Your task to perform on an android device: Go to accessibility settings Image 0: 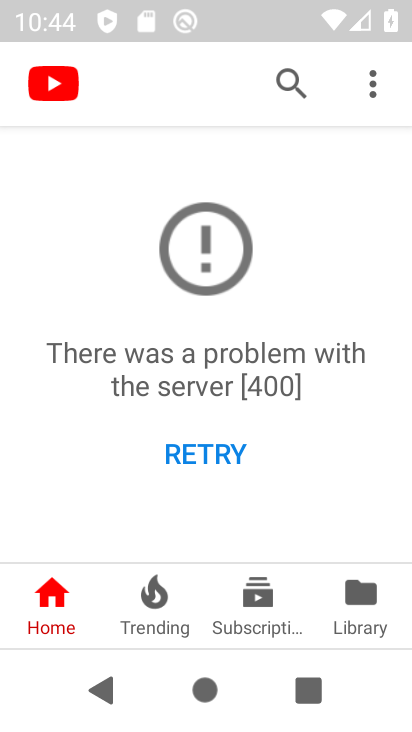
Step 0: press home button
Your task to perform on an android device: Go to accessibility settings Image 1: 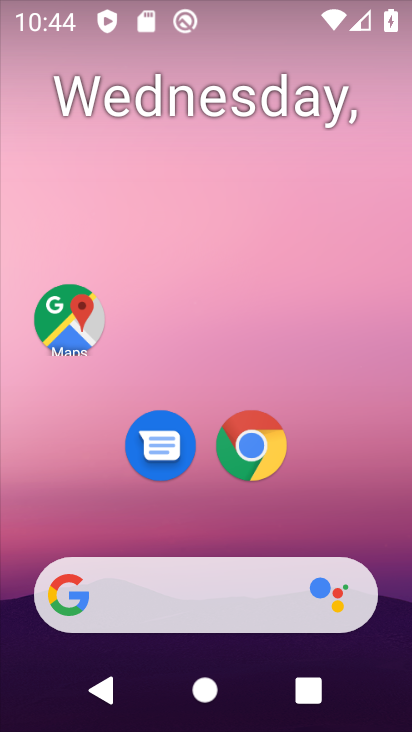
Step 1: drag from (185, 517) to (265, 105)
Your task to perform on an android device: Go to accessibility settings Image 2: 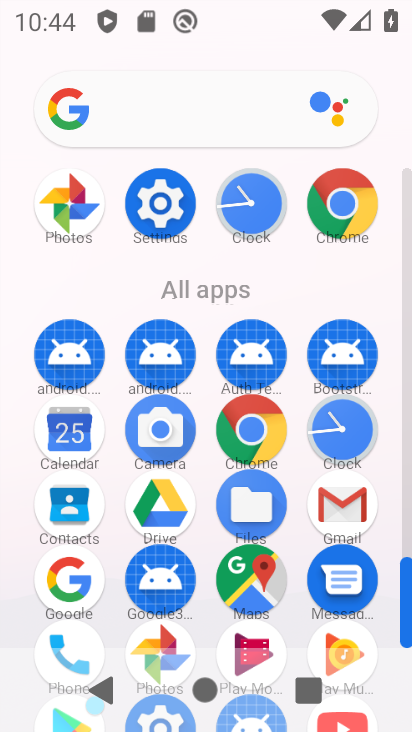
Step 2: click (168, 216)
Your task to perform on an android device: Go to accessibility settings Image 3: 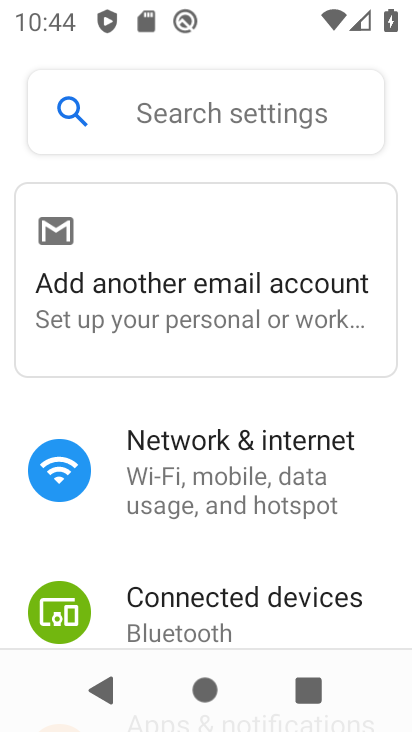
Step 3: drag from (183, 534) to (248, 144)
Your task to perform on an android device: Go to accessibility settings Image 4: 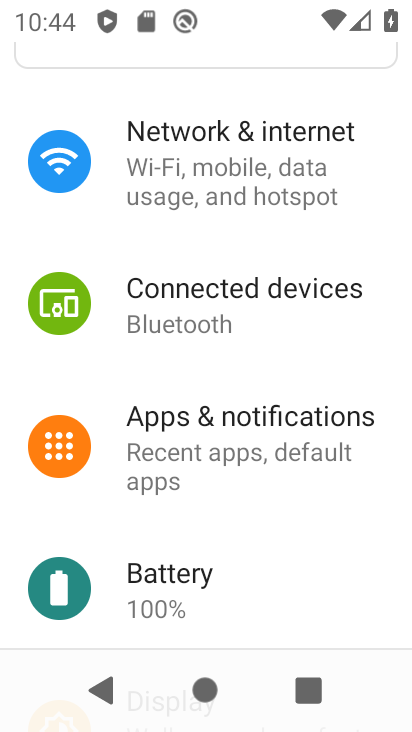
Step 4: drag from (216, 569) to (303, 76)
Your task to perform on an android device: Go to accessibility settings Image 5: 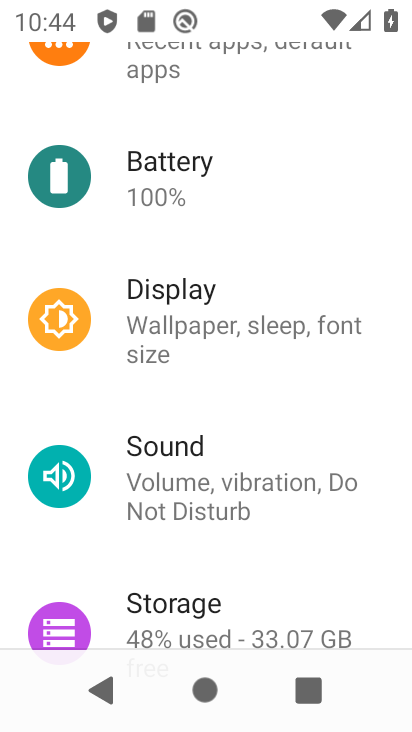
Step 5: drag from (219, 566) to (281, 72)
Your task to perform on an android device: Go to accessibility settings Image 6: 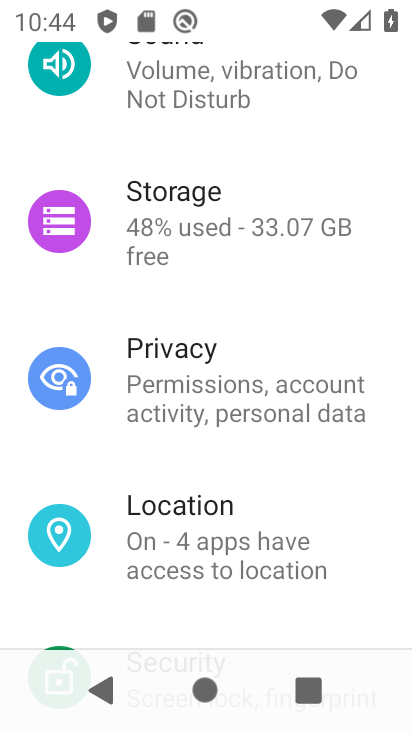
Step 6: drag from (216, 583) to (331, 27)
Your task to perform on an android device: Go to accessibility settings Image 7: 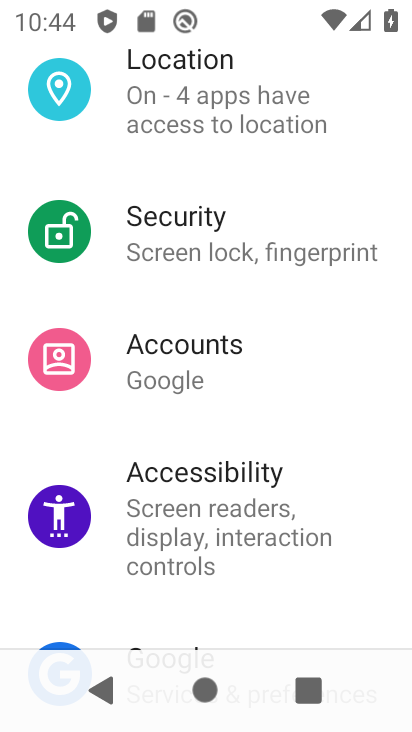
Step 7: click (172, 480)
Your task to perform on an android device: Go to accessibility settings Image 8: 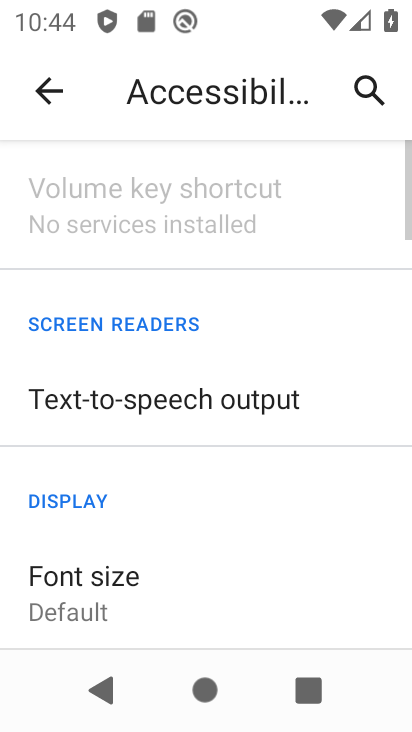
Step 8: task complete